Your task to perform on an android device: turn on airplane mode Image 0: 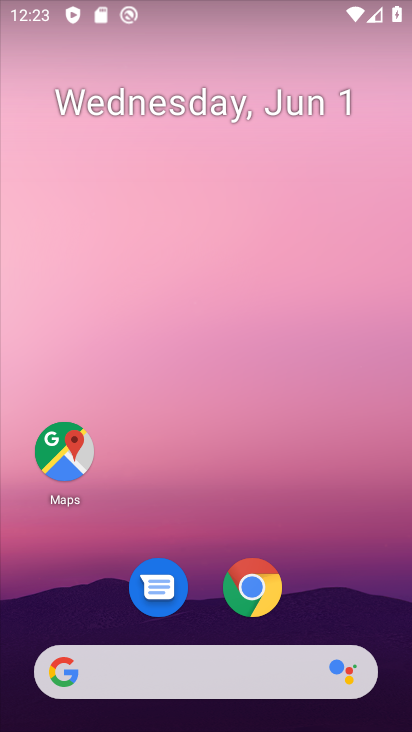
Step 0: drag from (340, 580) to (218, 73)
Your task to perform on an android device: turn on airplane mode Image 1: 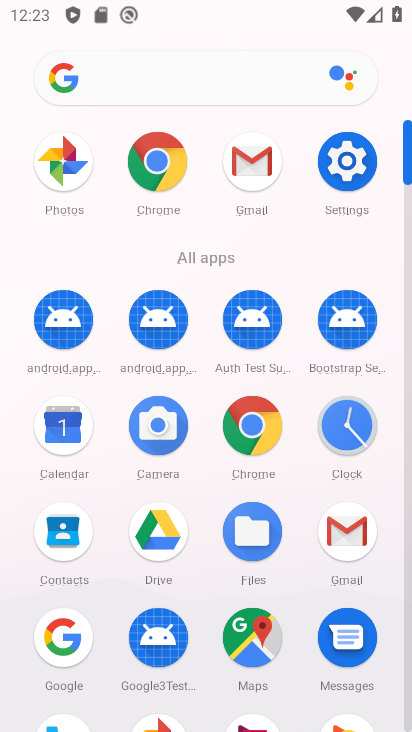
Step 1: click (343, 159)
Your task to perform on an android device: turn on airplane mode Image 2: 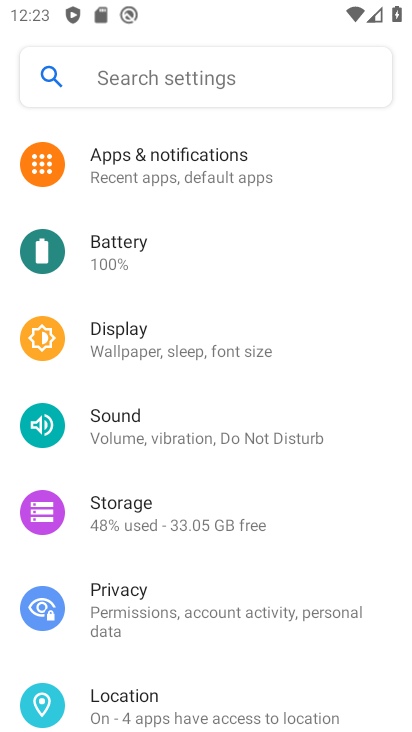
Step 2: drag from (195, 235) to (143, 551)
Your task to perform on an android device: turn on airplane mode Image 3: 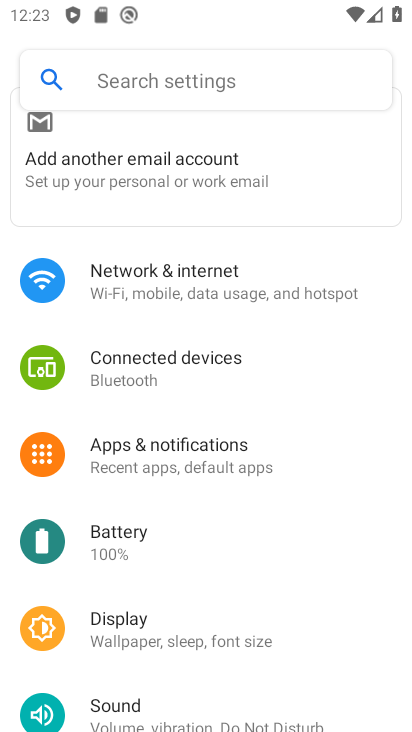
Step 3: click (148, 265)
Your task to perform on an android device: turn on airplane mode Image 4: 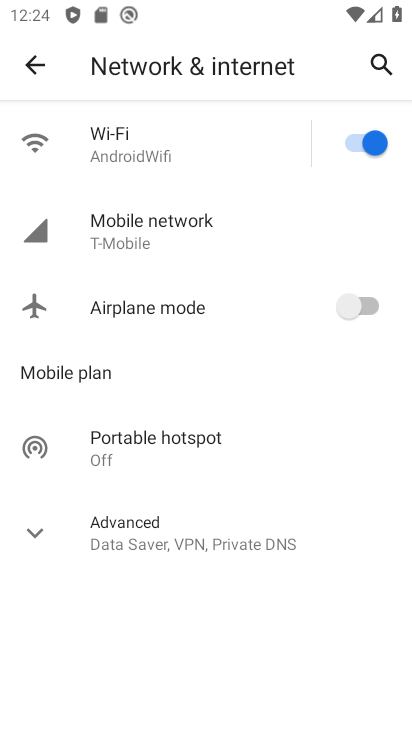
Step 4: click (356, 307)
Your task to perform on an android device: turn on airplane mode Image 5: 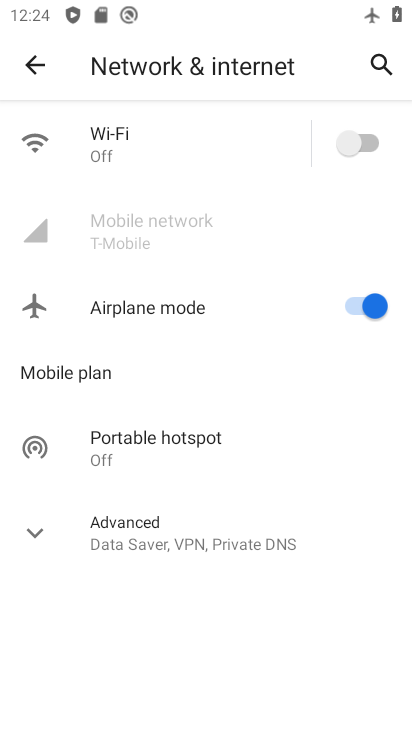
Step 5: task complete